Your task to perform on an android device: Show me productivity apps on the Play Store Image 0: 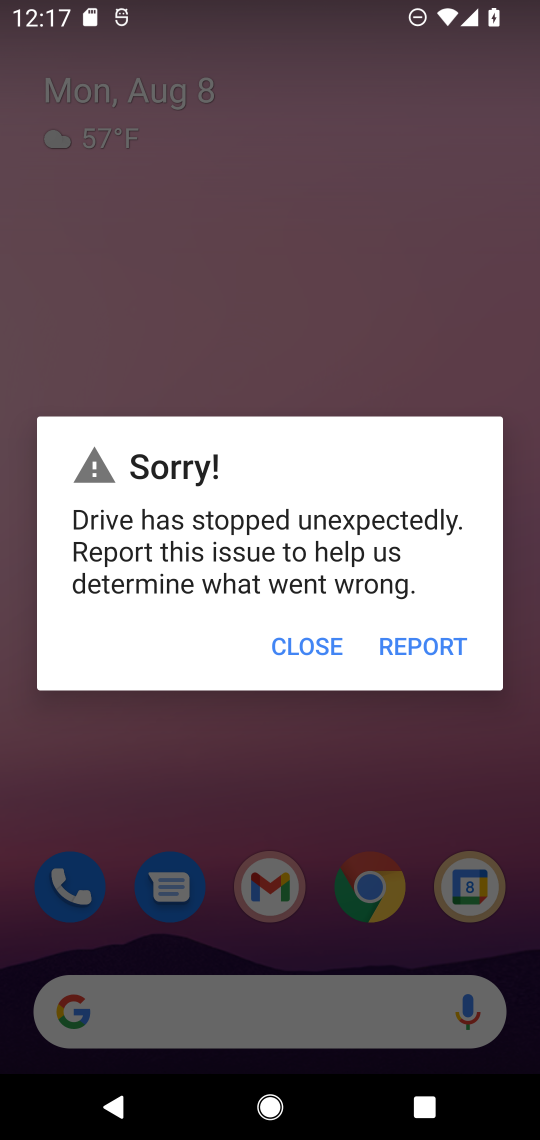
Step 0: press home button
Your task to perform on an android device: Show me productivity apps on the Play Store Image 1: 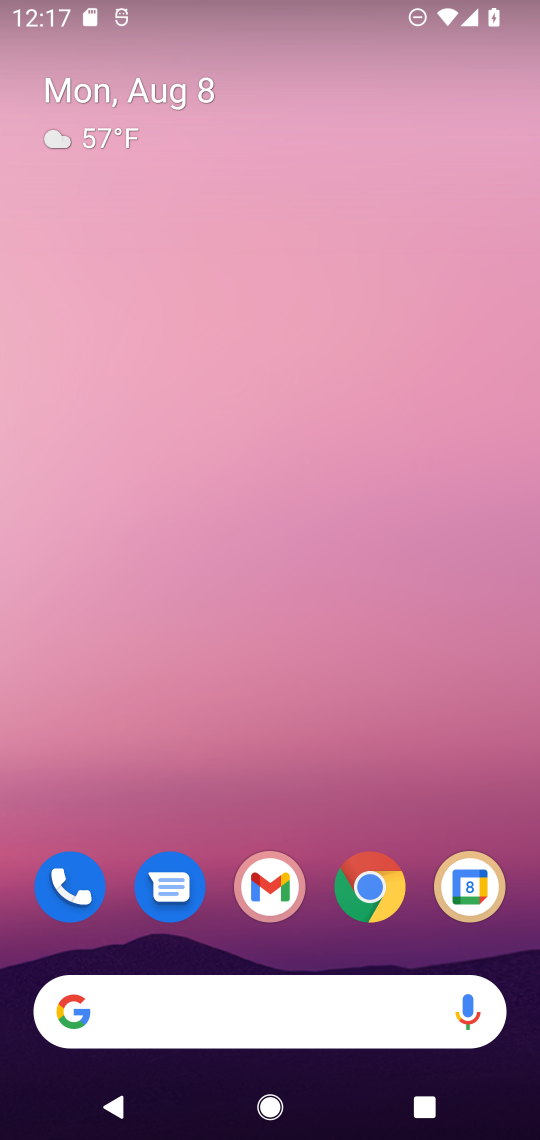
Step 1: drag from (287, 774) to (277, 185)
Your task to perform on an android device: Show me productivity apps on the Play Store Image 2: 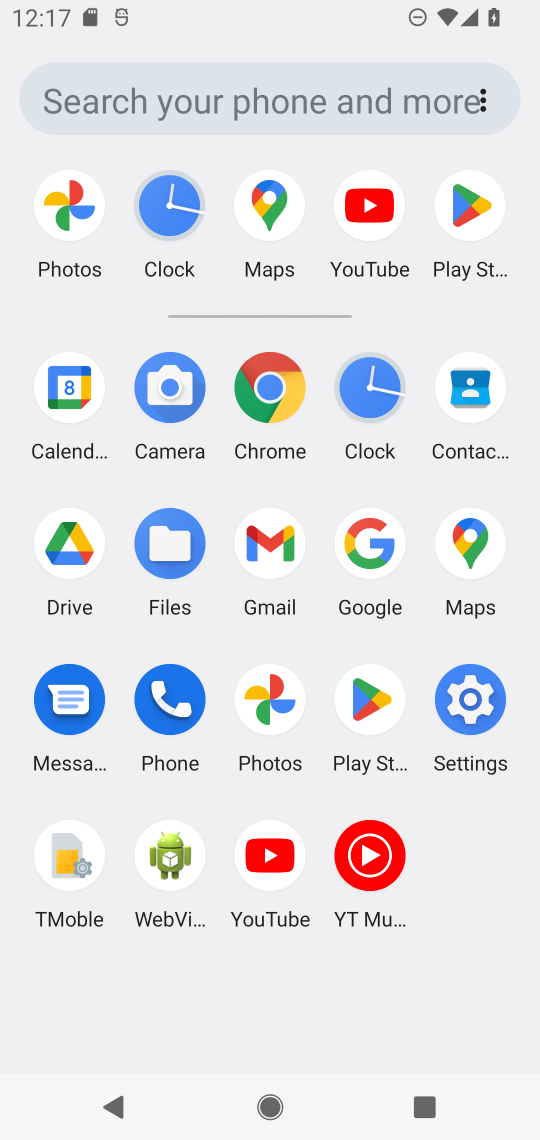
Step 2: click (466, 199)
Your task to perform on an android device: Show me productivity apps on the Play Store Image 3: 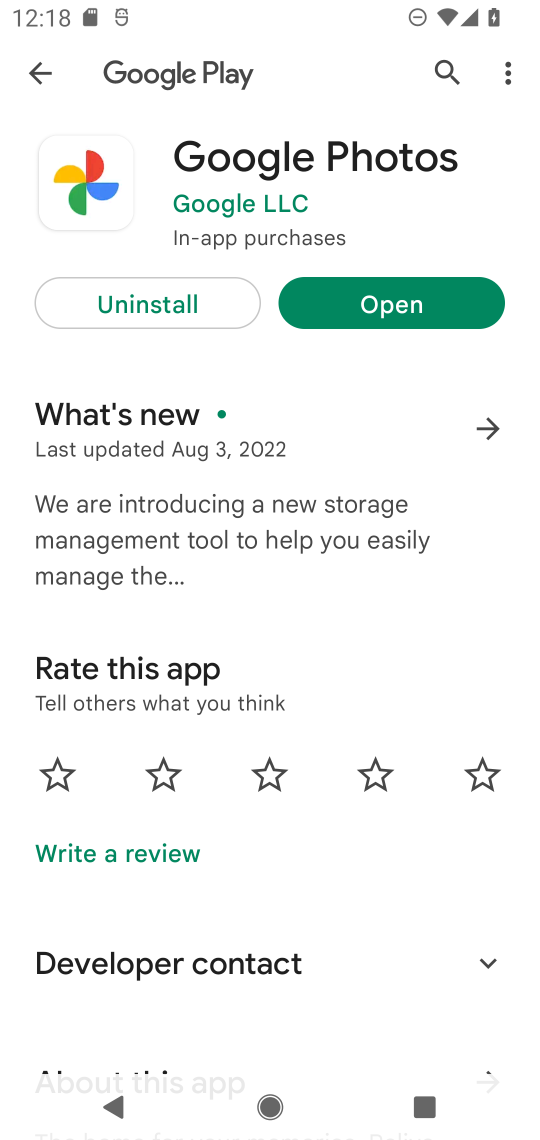
Step 3: click (35, 70)
Your task to perform on an android device: Show me productivity apps on the Play Store Image 4: 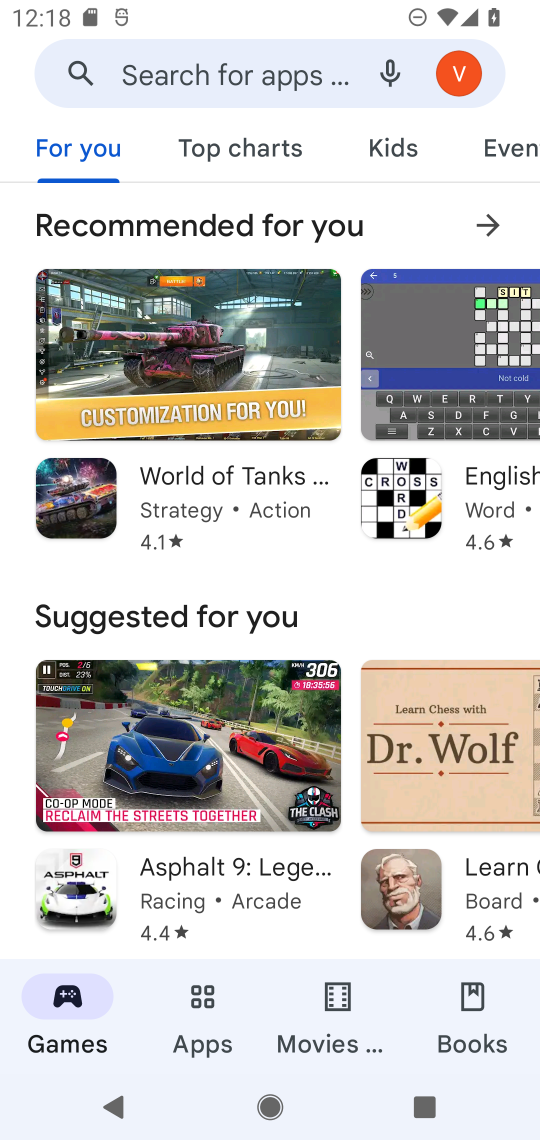
Step 4: click (203, 998)
Your task to perform on an android device: Show me productivity apps on the Play Store Image 5: 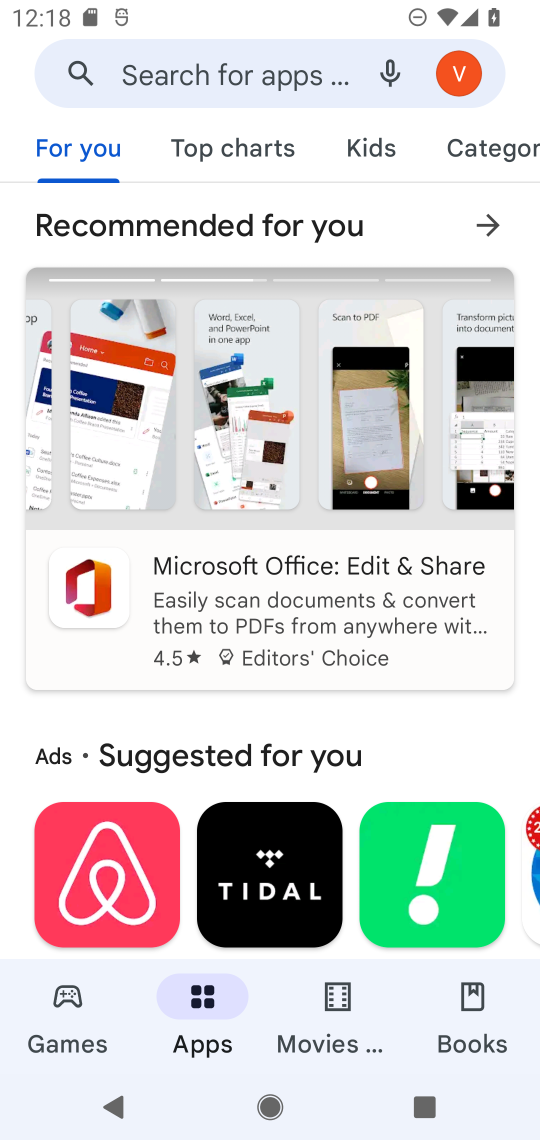
Step 5: task complete